Your task to perform on an android device: Open Google Chrome Image 0: 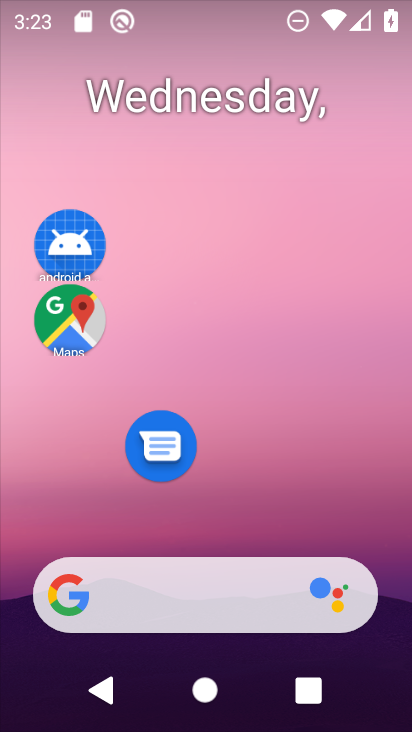
Step 0: drag from (217, 499) to (200, 140)
Your task to perform on an android device: Open Google Chrome Image 1: 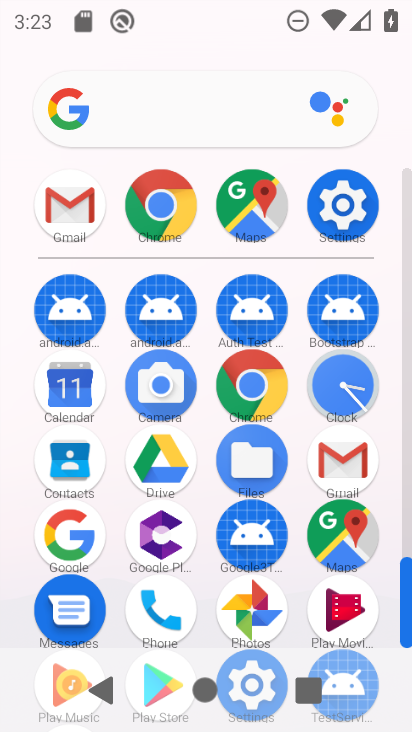
Step 1: click (176, 197)
Your task to perform on an android device: Open Google Chrome Image 2: 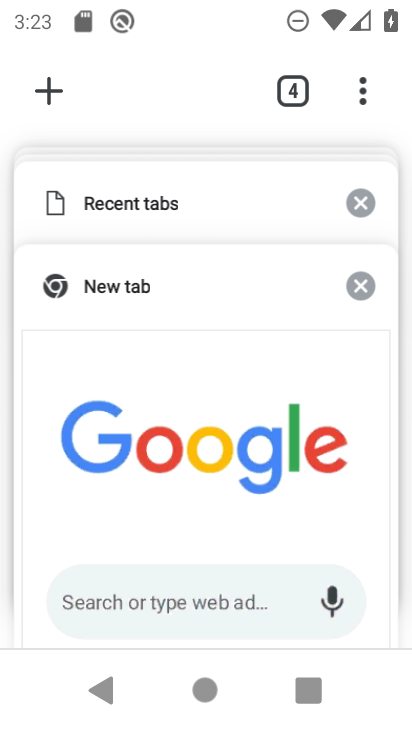
Step 2: click (48, 80)
Your task to perform on an android device: Open Google Chrome Image 3: 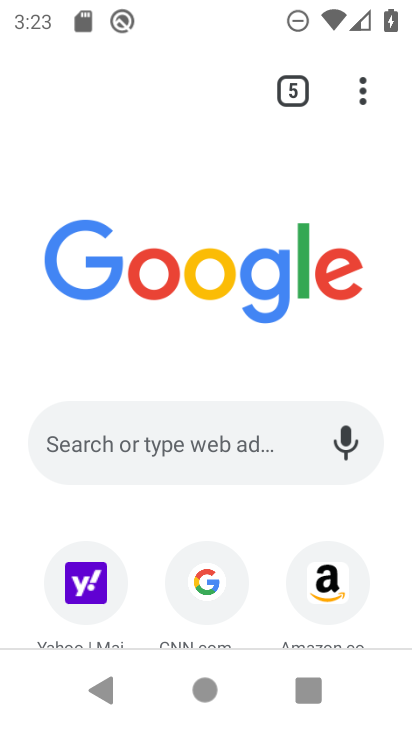
Step 3: task complete